Your task to perform on an android device: Open the web browser Image 0: 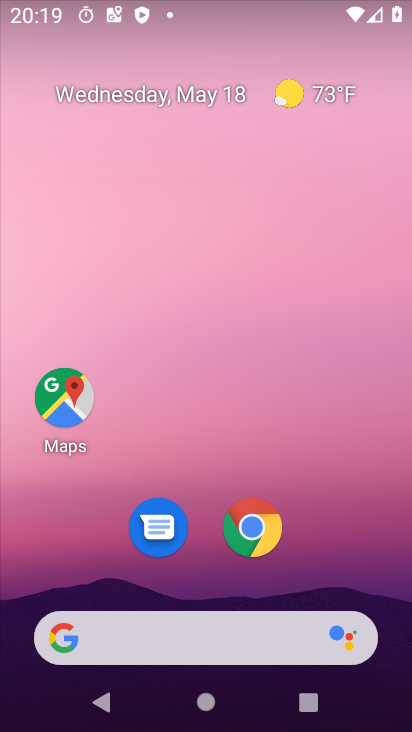
Step 0: click (257, 519)
Your task to perform on an android device: Open the web browser Image 1: 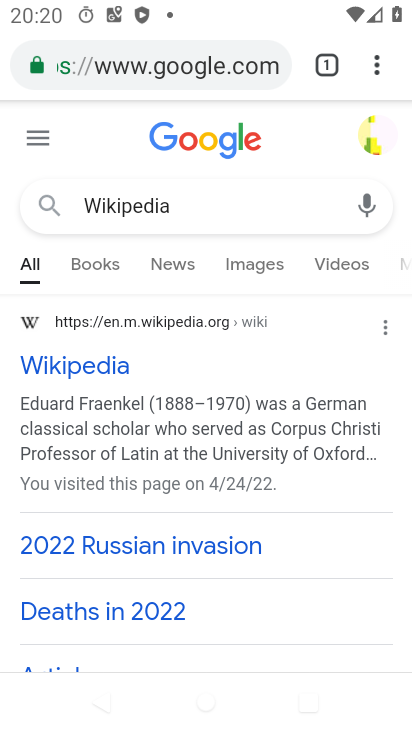
Step 1: task complete